Your task to perform on an android device: Open display settings Image 0: 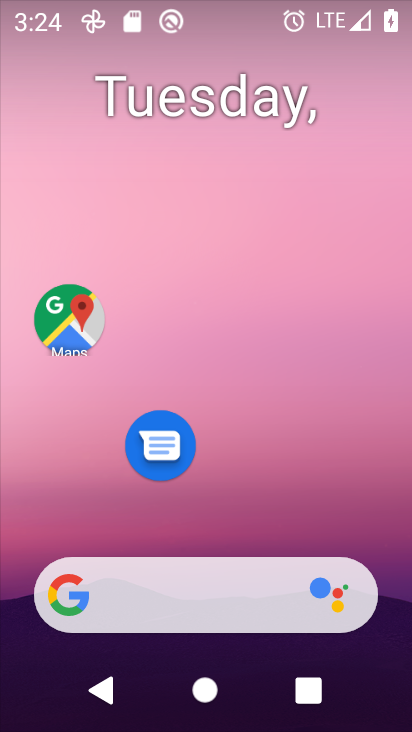
Step 0: drag from (257, 507) to (240, 21)
Your task to perform on an android device: Open display settings Image 1: 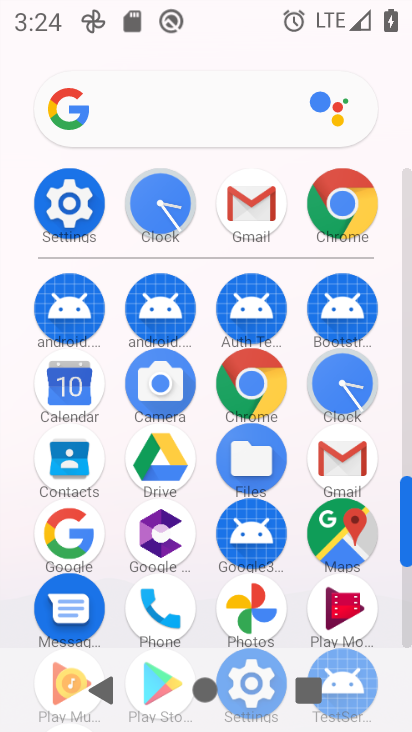
Step 1: click (79, 207)
Your task to perform on an android device: Open display settings Image 2: 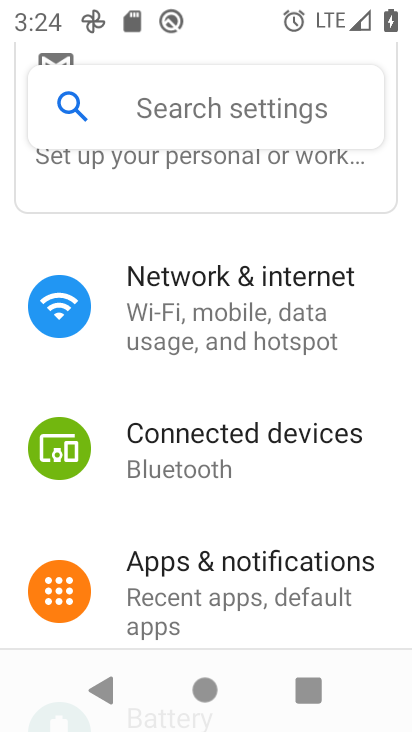
Step 2: drag from (247, 469) to (247, 285)
Your task to perform on an android device: Open display settings Image 3: 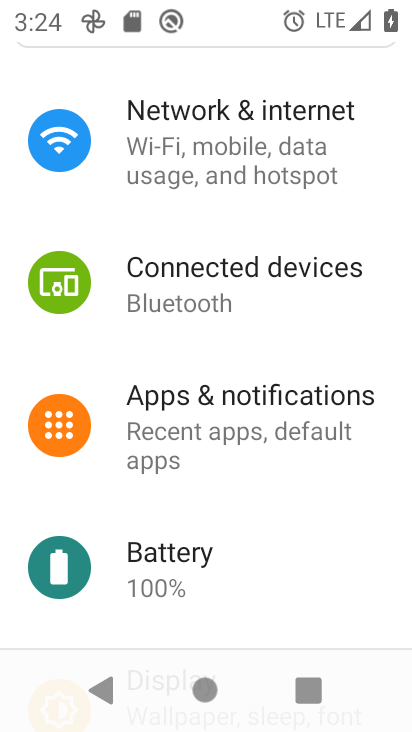
Step 3: drag from (204, 587) to (185, 274)
Your task to perform on an android device: Open display settings Image 4: 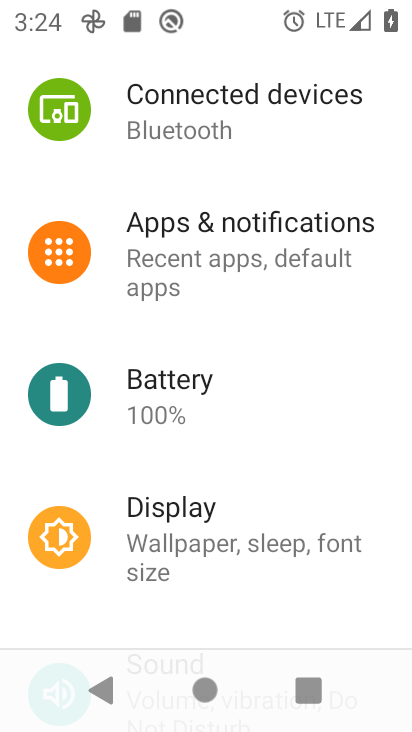
Step 4: click (171, 496)
Your task to perform on an android device: Open display settings Image 5: 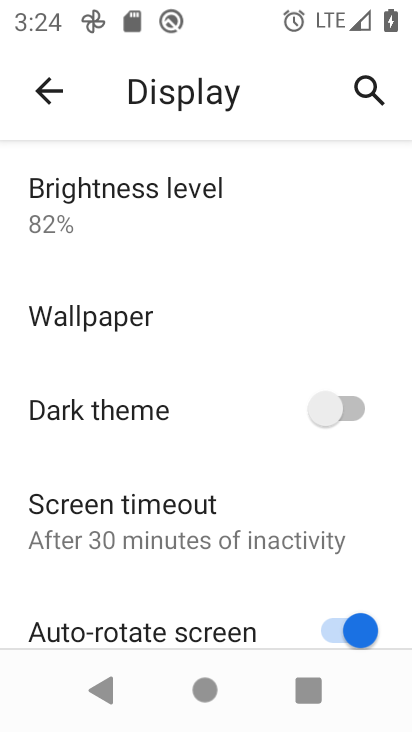
Step 5: task complete